Your task to perform on an android device: check data usage Image 0: 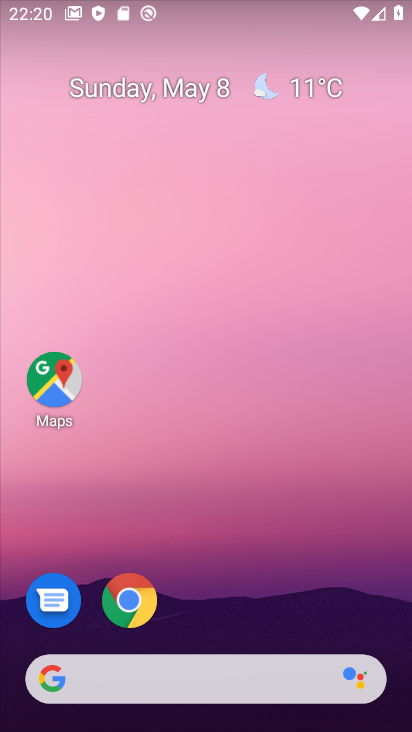
Step 0: drag from (171, 637) to (198, 211)
Your task to perform on an android device: check data usage Image 1: 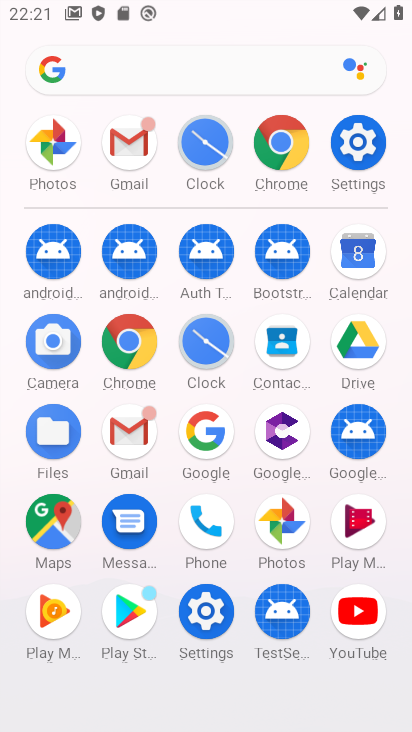
Step 1: click (384, 149)
Your task to perform on an android device: check data usage Image 2: 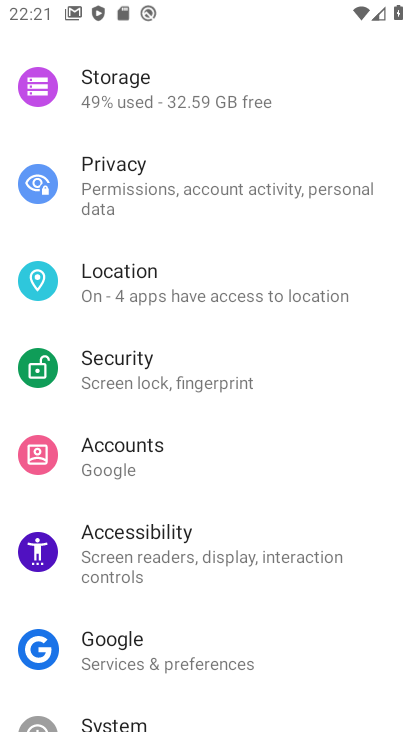
Step 2: drag from (220, 176) to (266, 603)
Your task to perform on an android device: check data usage Image 3: 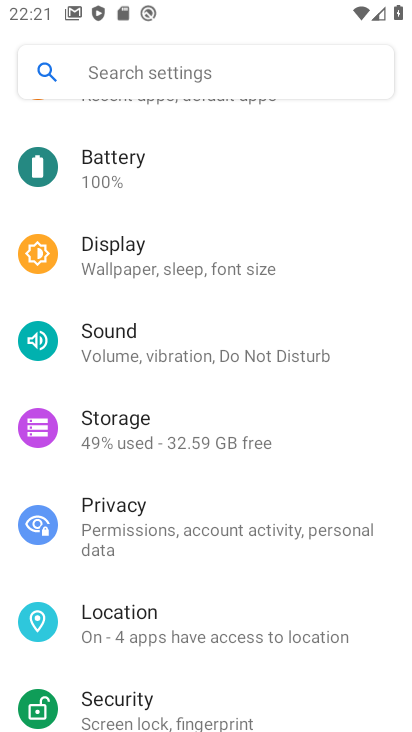
Step 3: drag from (187, 246) to (193, 596)
Your task to perform on an android device: check data usage Image 4: 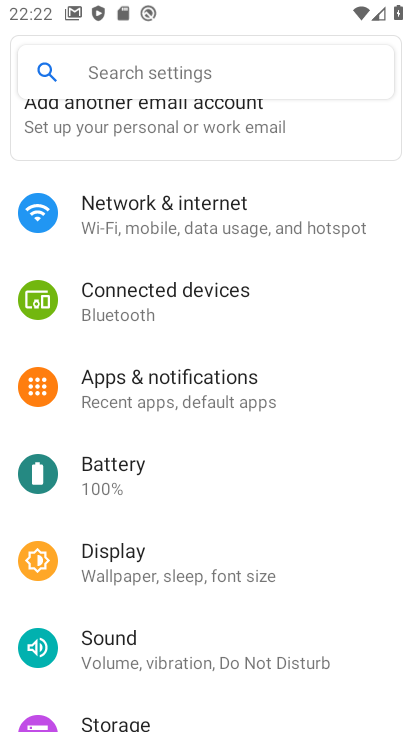
Step 4: click (208, 212)
Your task to perform on an android device: check data usage Image 5: 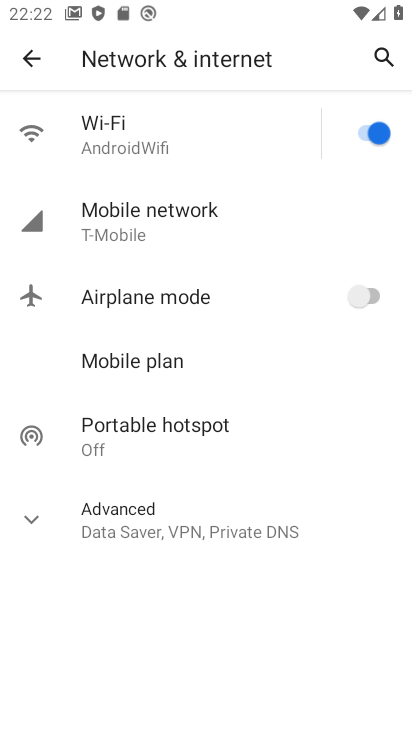
Step 5: click (208, 212)
Your task to perform on an android device: check data usage Image 6: 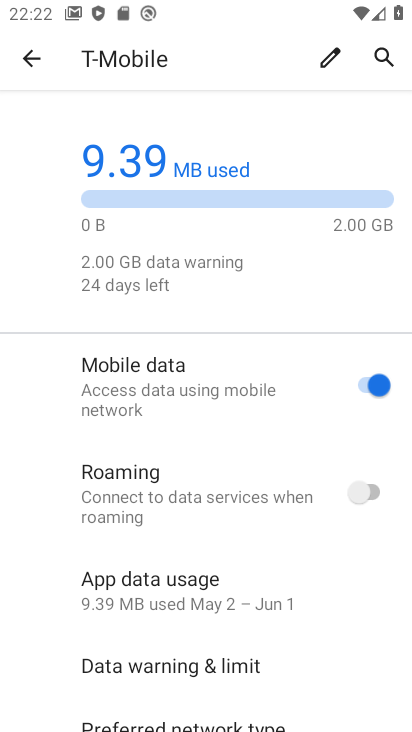
Step 6: task complete